Your task to perform on an android device: Open Youtube and go to "Your channel" Image 0: 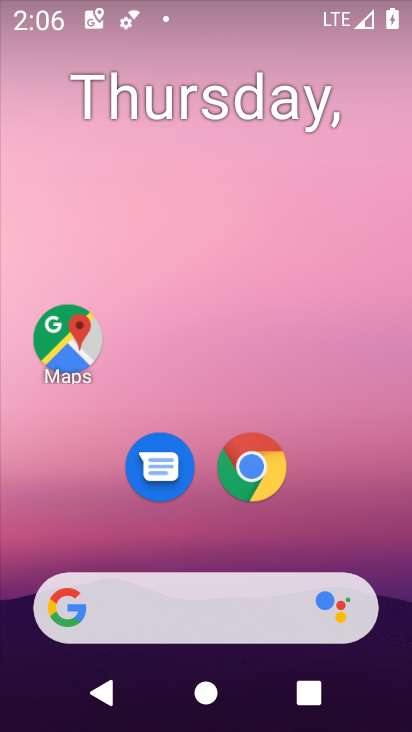
Step 0: click (244, 481)
Your task to perform on an android device: Open Youtube and go to "Your channel" Image 1: 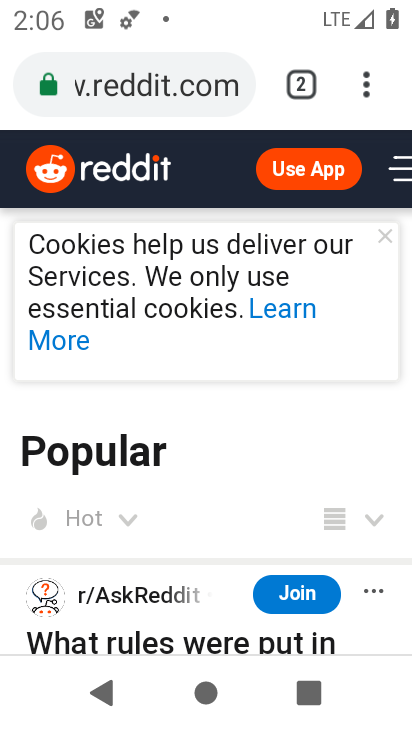
Step 1: press home button
Your task to perform on an android device: Open Youtube and go to "Your channel" Image 2: 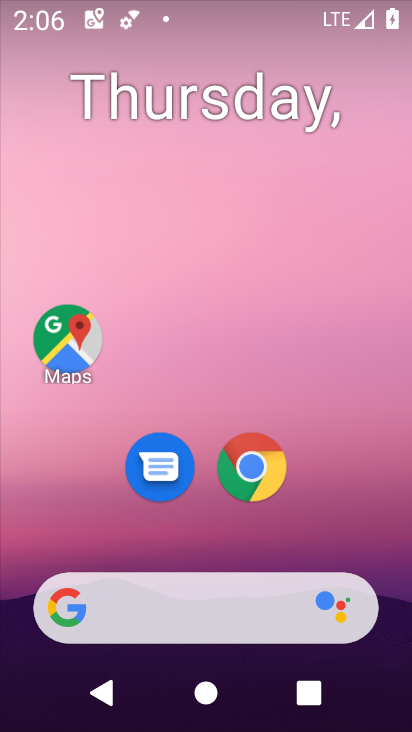
Step 2: drag from (201, 533) to (88, 11)
Your task to perform on an android device: Open Youtube and go to "Your channel" Image 3: 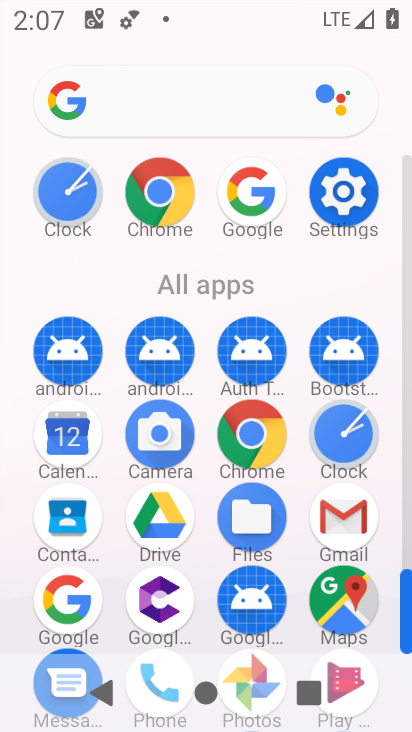
Step 3: drag from (205, 558) to (147, 193)
Your task to perform on an android device: Open Youtube and go to "Your channel" Image 4: 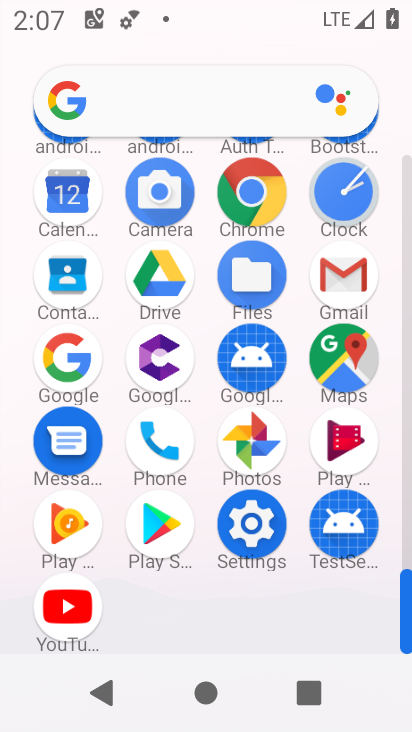
Step 4: click (78, 615)
Your task to perform on an android device: Open Youtube and go to "Your channel" Image 5: 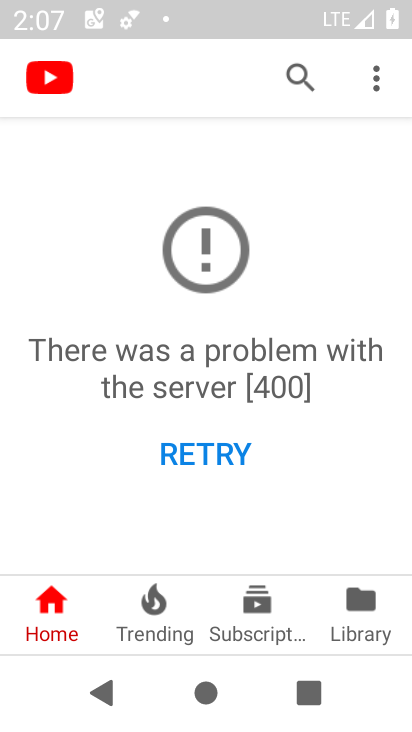
Step 5: click (210, 451)
Your task to perform on an android device: Open Youtube and go to "Your channel" Image 6: 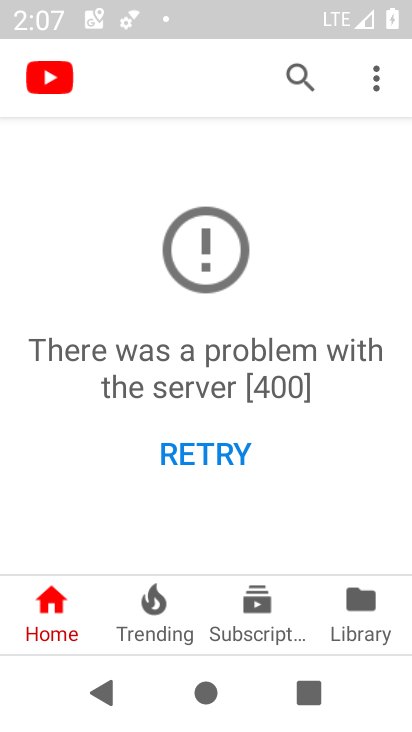
Step 6: click (210, 450)
Your task to perform on an android device: Open Youtube and go to "Your channel" Image 7: 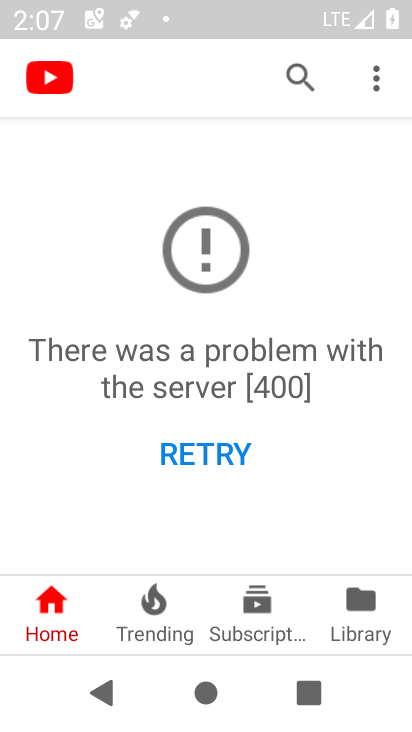
Step 7: click (210, 450)
Your task to perform on an android device: Open Youtube and go to "Your channel" Image 8: 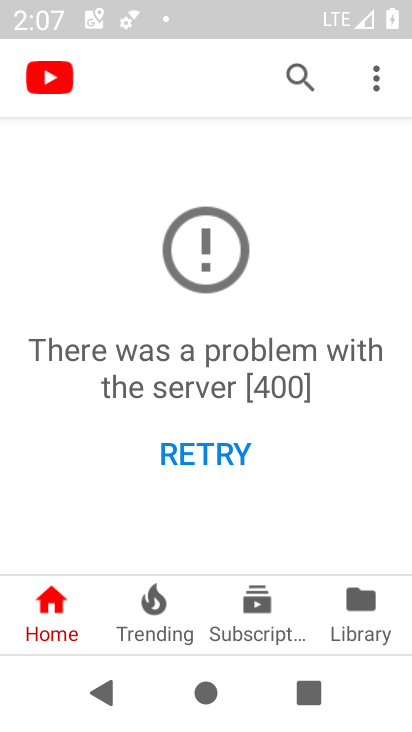
Step 8: task complete